Your task to perform on an android device: Clear the cart on costco.com. Add "razer naga" to the cart on costco.com Image 0: 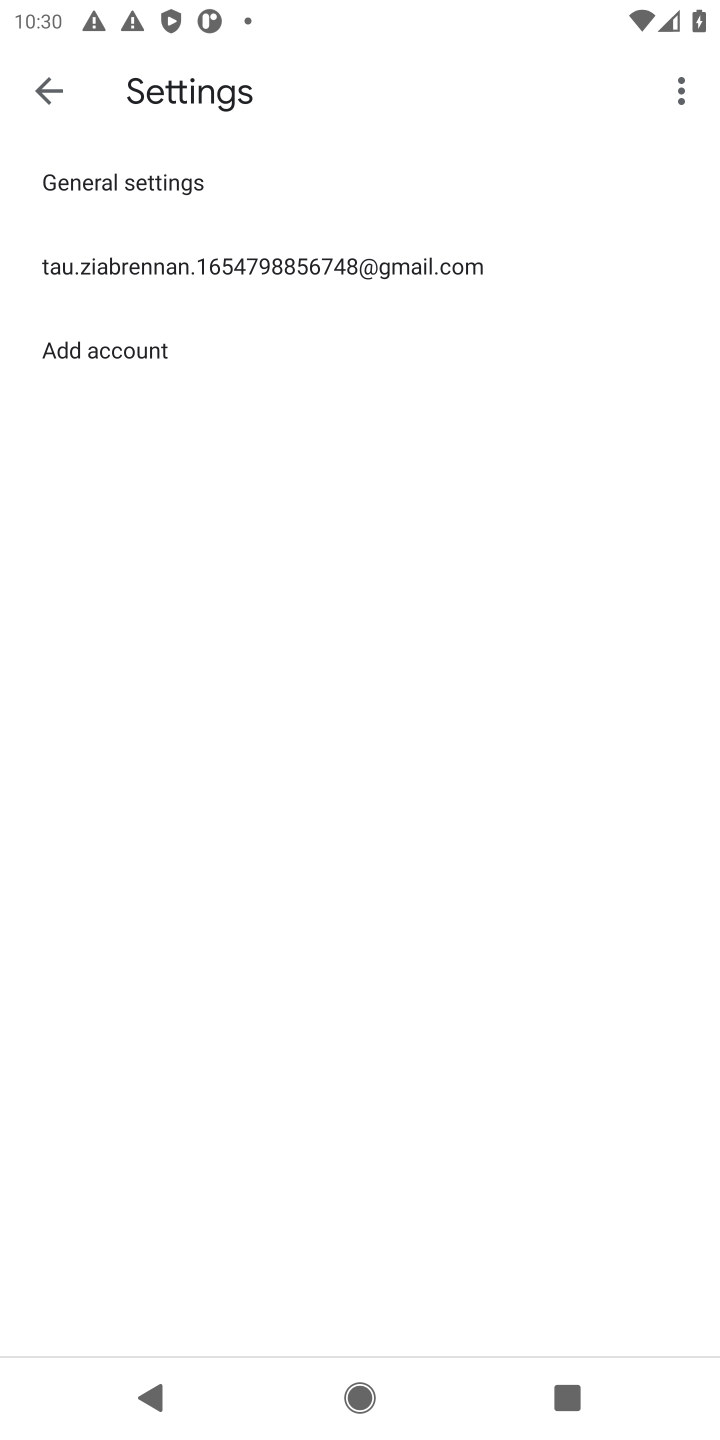
Step 0: press home button
Your task to perform on an android device: Clear the cart on costco.com. Add "razer naga" to the cart on costco.com Image 1: 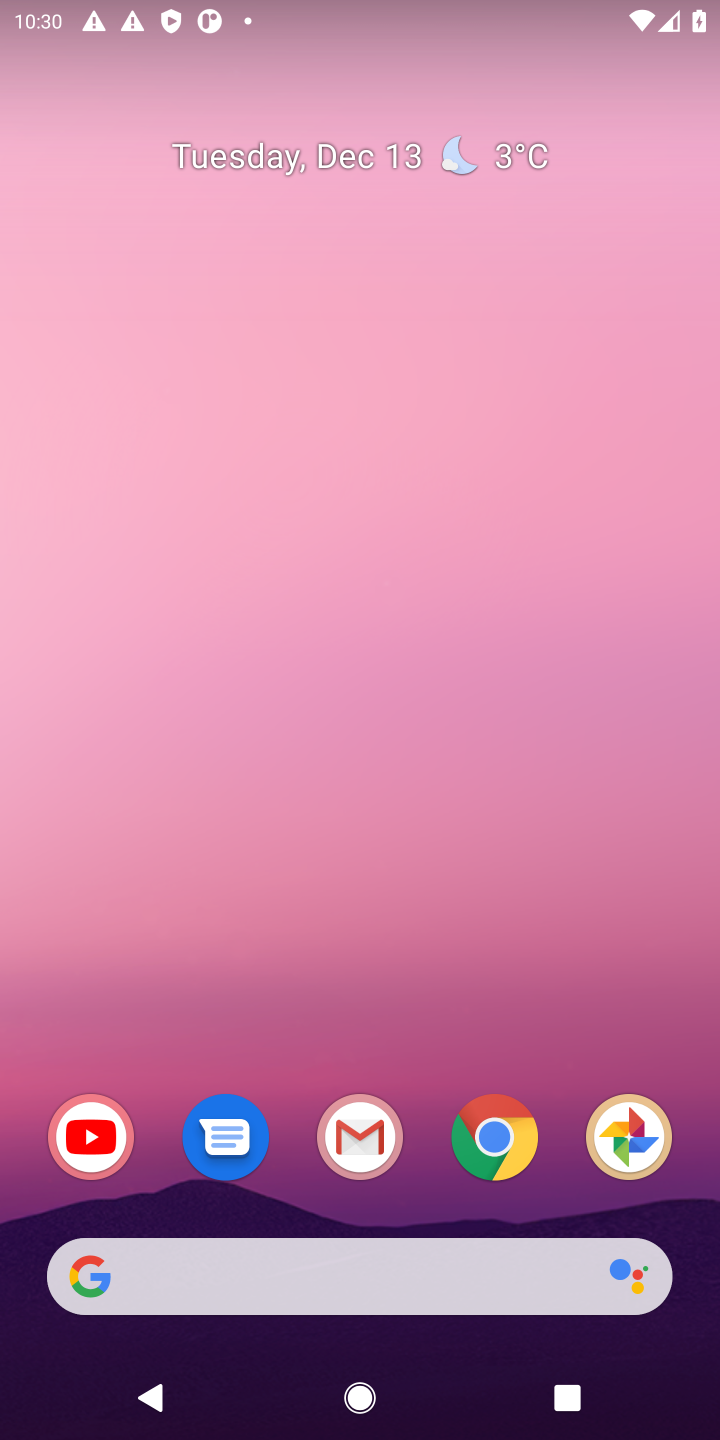
Step 1: click (490, 1124)
Your task to perform on an android device: Clear the cart on costco.com. Add "razer naga" to the cart on costco.com Image 2: 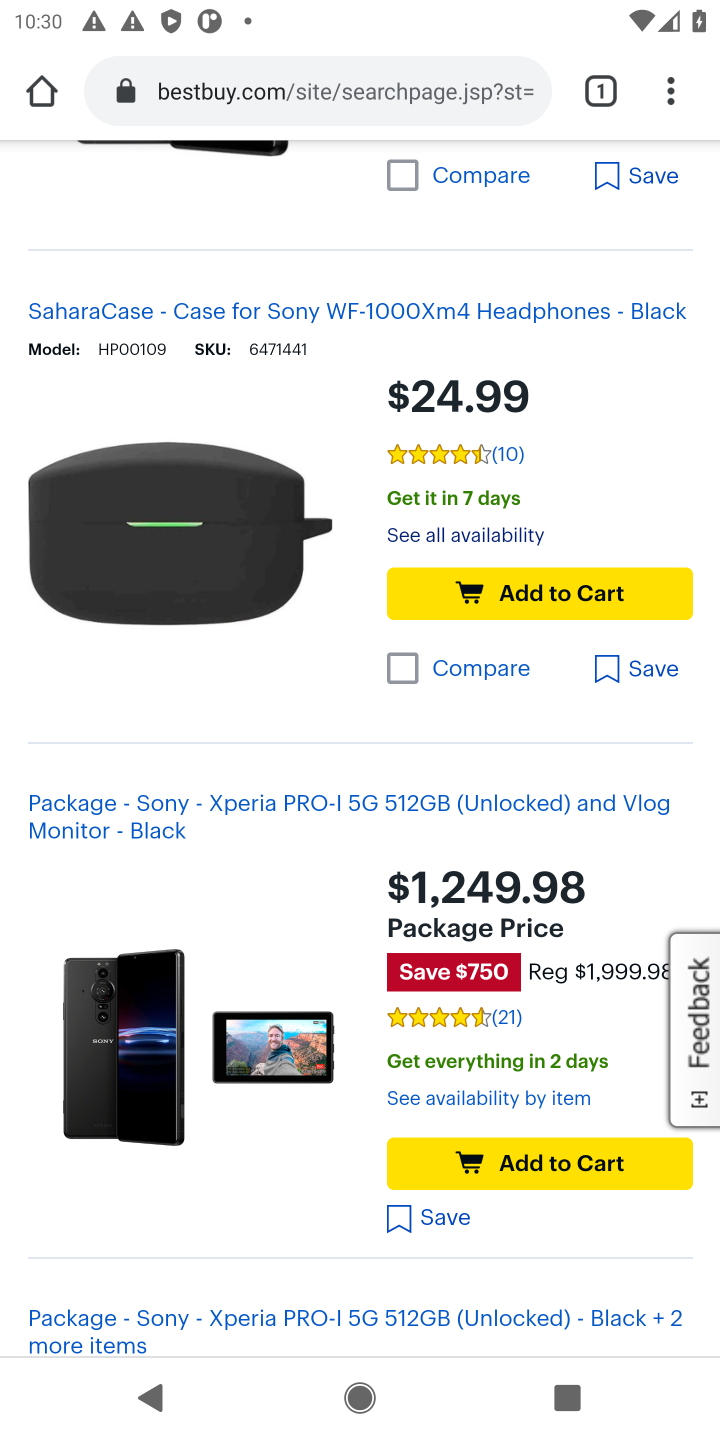
Step 2: click (602, 87)
Your task to perform on an android device: Clear the cart on costco.com. Add "razer naga" to the cart on costco.com Image 3: 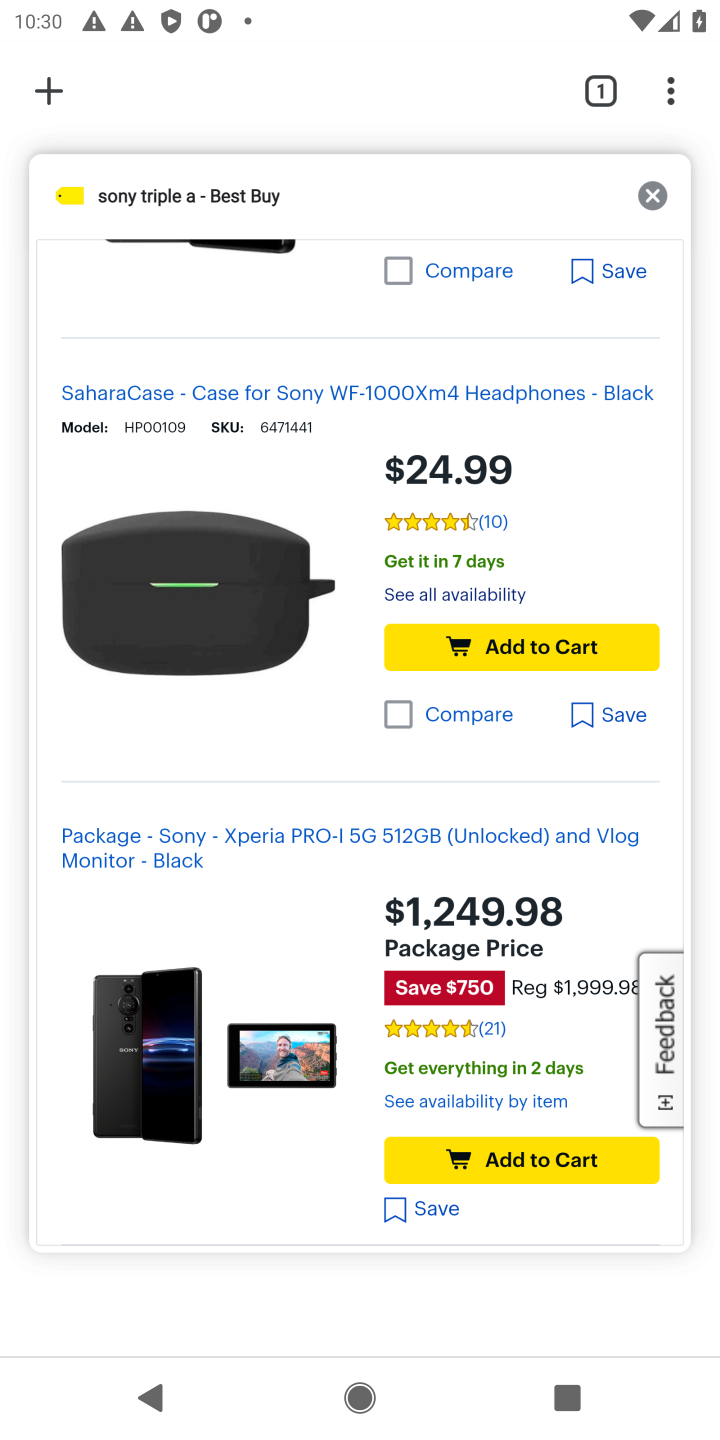
Step 3: click (43, 84)
Your task to perform on an android device: Clear the cart on costco.com. Add "razer naga" to the cart on costco.com Image 4: 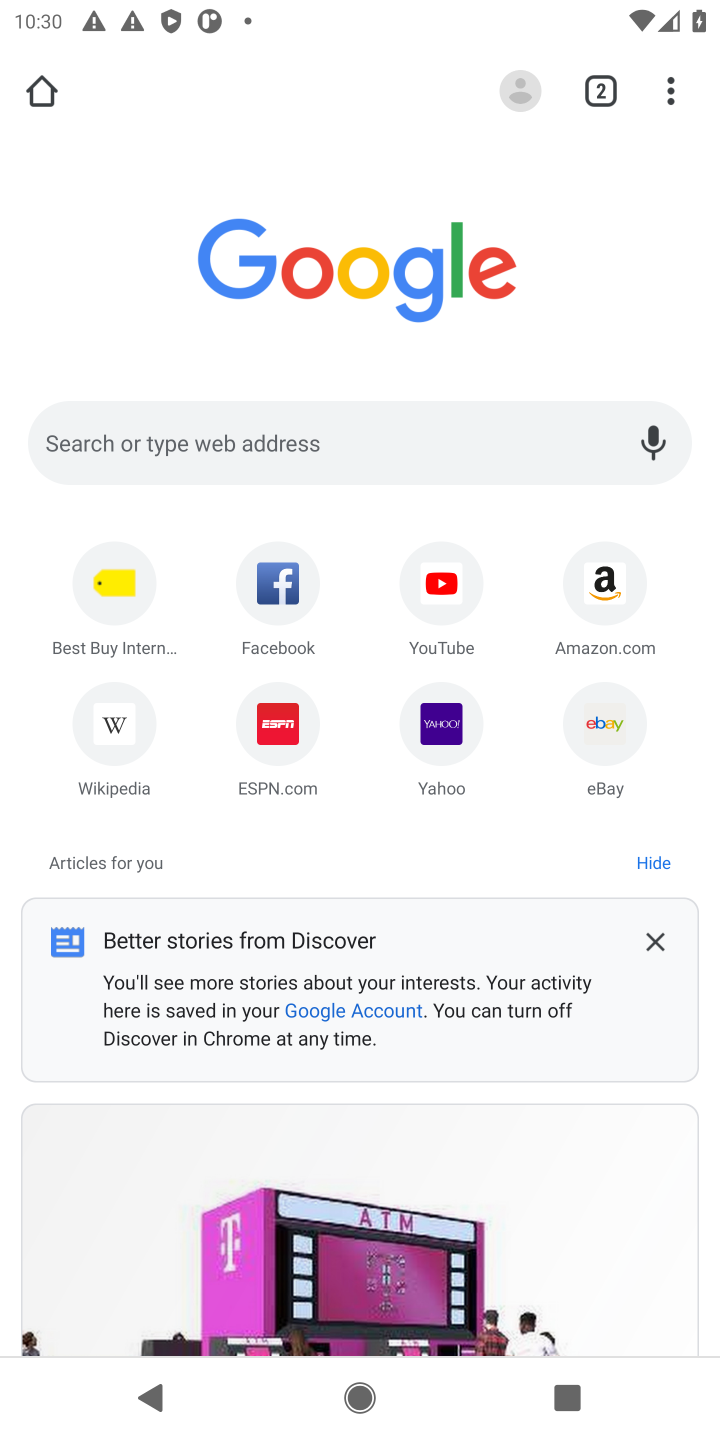
Step 4: click (231, 447)
Your task to perform on an android device: Clear the cart on costco.com. Add "razer naga" to the cart on costco.com Image 5: 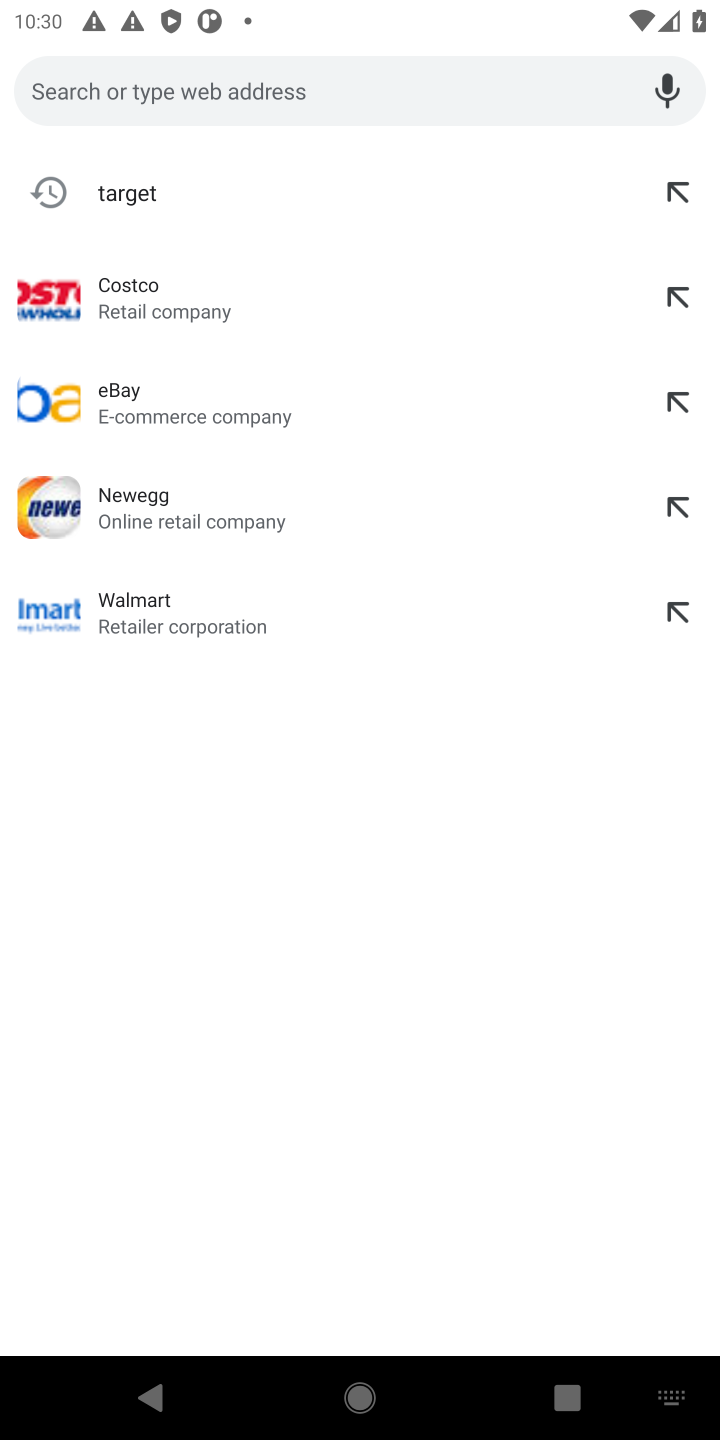
Step 5: type "costco"
Your task to perform on an android device: Clear the cart on costco.com. Add "razer naga" to the cart on costco.com Image 6: 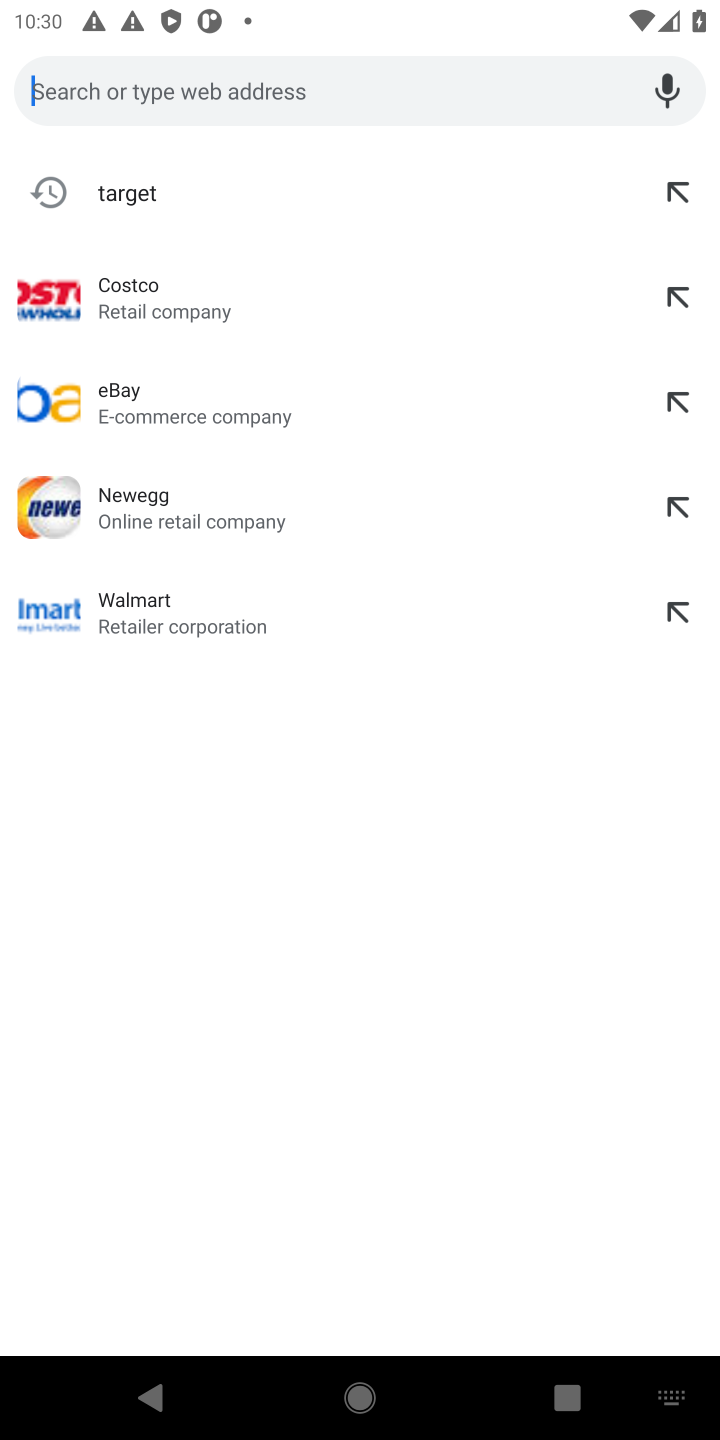
Step 6: drag from (161, 299) to (21, 304)
Your task to perform on an android device: Clear the cart on costco.com. Add "razer naga" to the cart on costco.com Image 7: 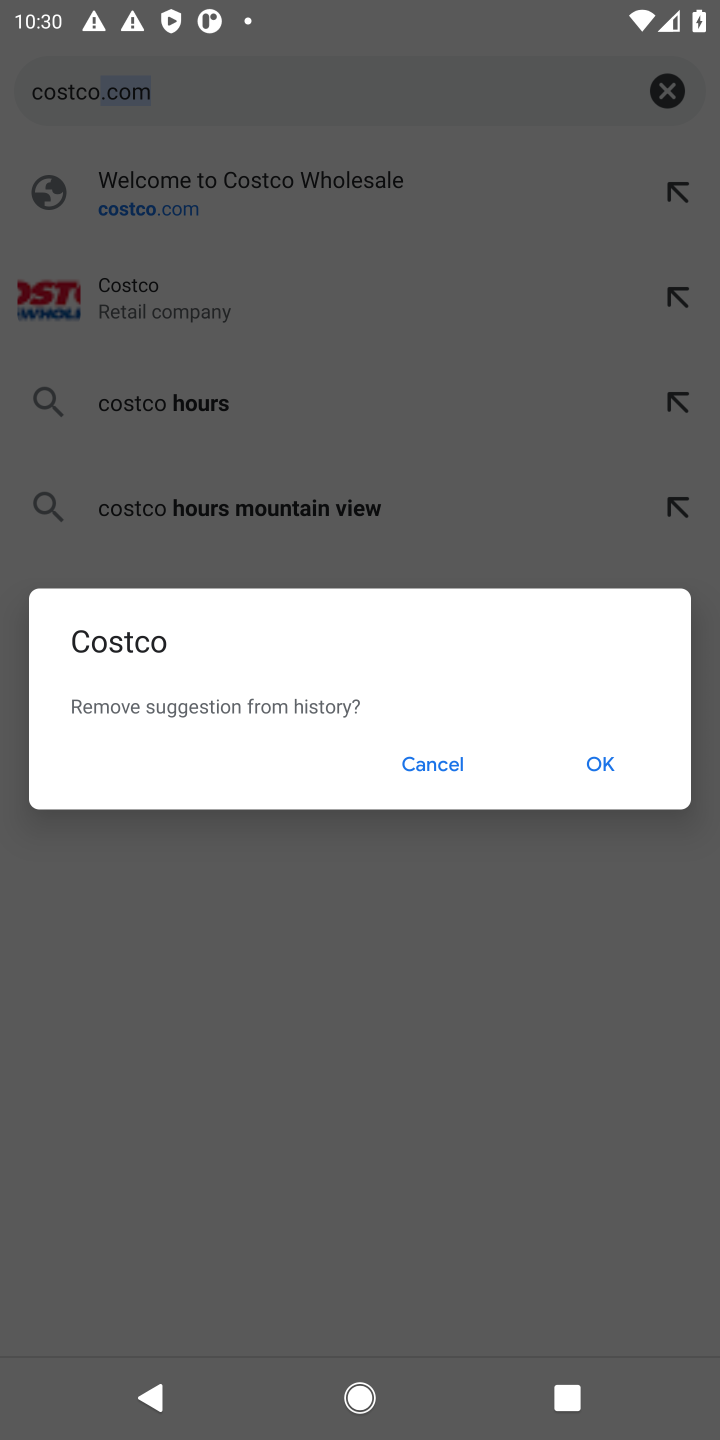
Step 7: click (581, 757)
Your task to perform on an android device: Clear the cart on costco.com. Add "razer naga" to the cart on costco.com Image 8: 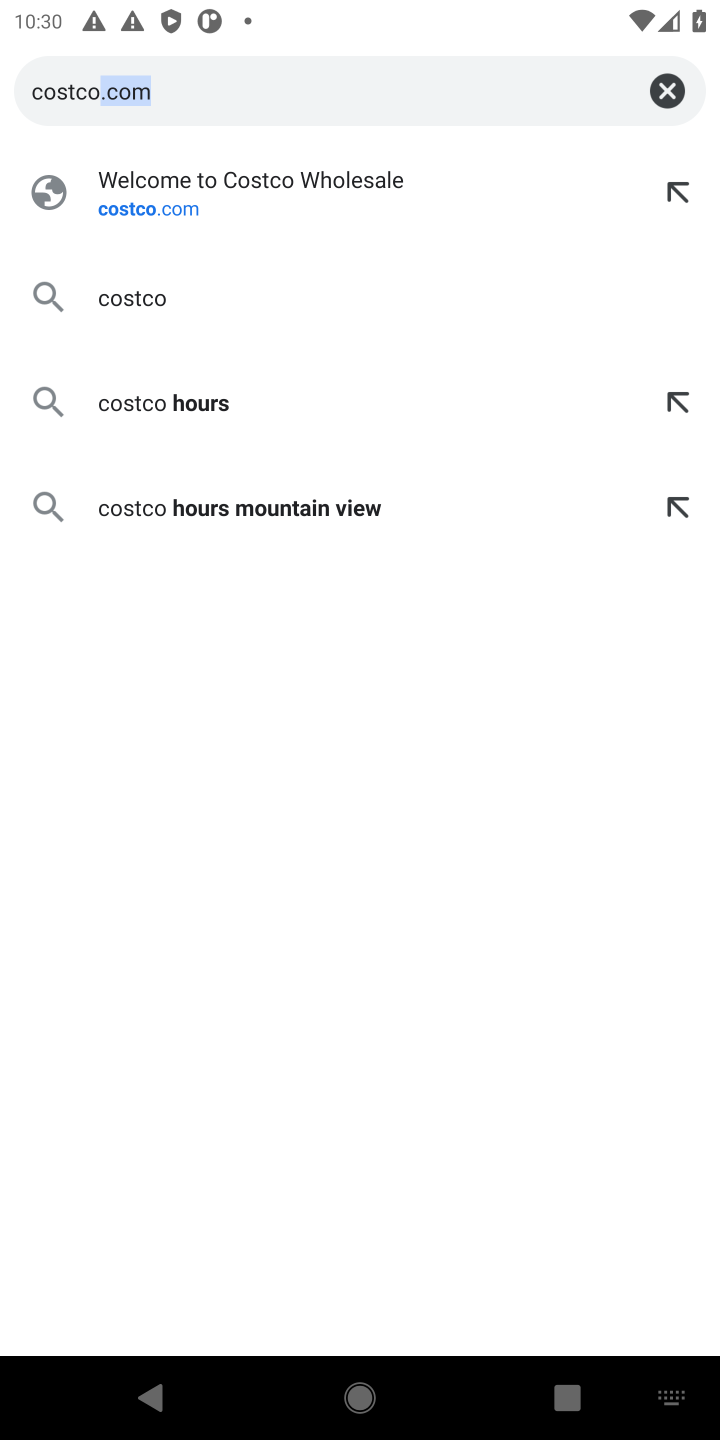
Step 8: click (182, 191)
Your task to perform on an android device: Clear the cart on costco.com. Add "razer naga" to the cart on costco.com Image 9: 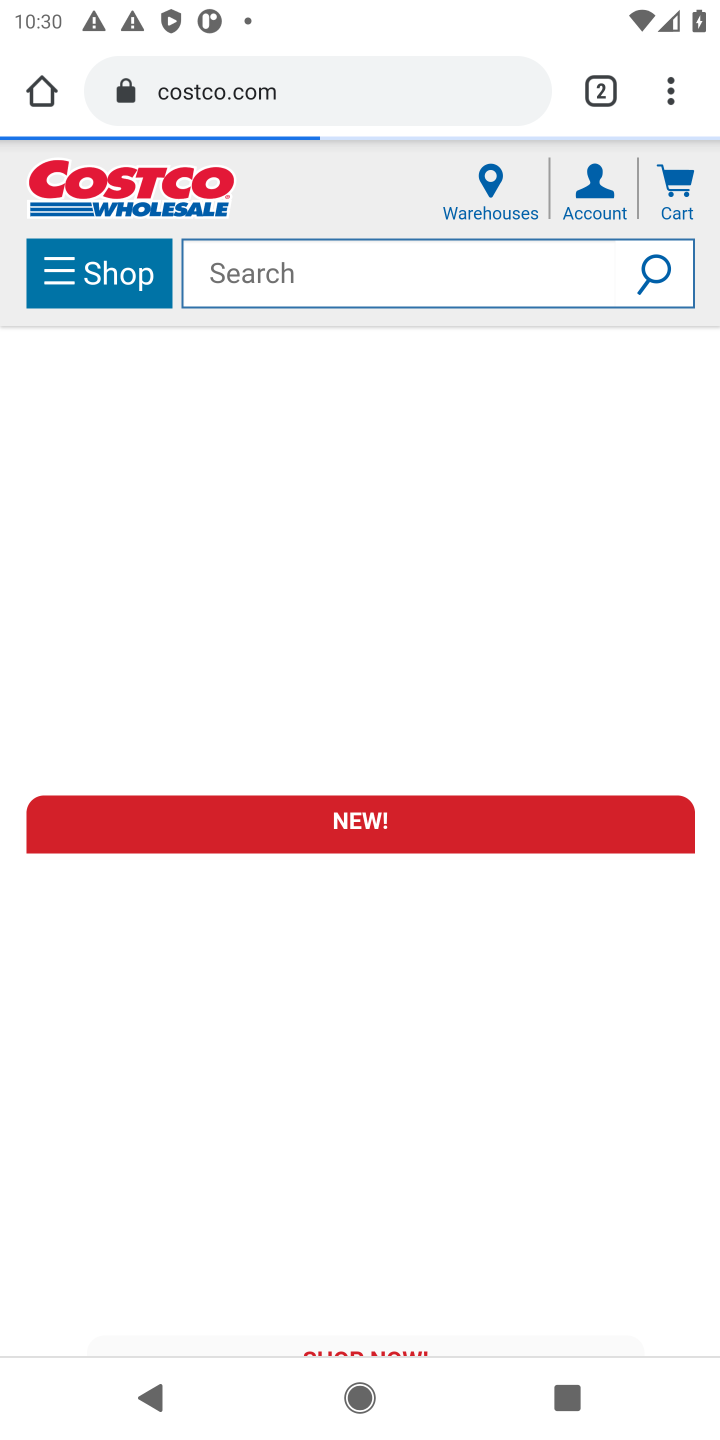
Step 9: click (389, 276)
Your task to perform on an android device: Clear the cart on costco.com. Add "razer naga" to the cart on costco.com Image 10: 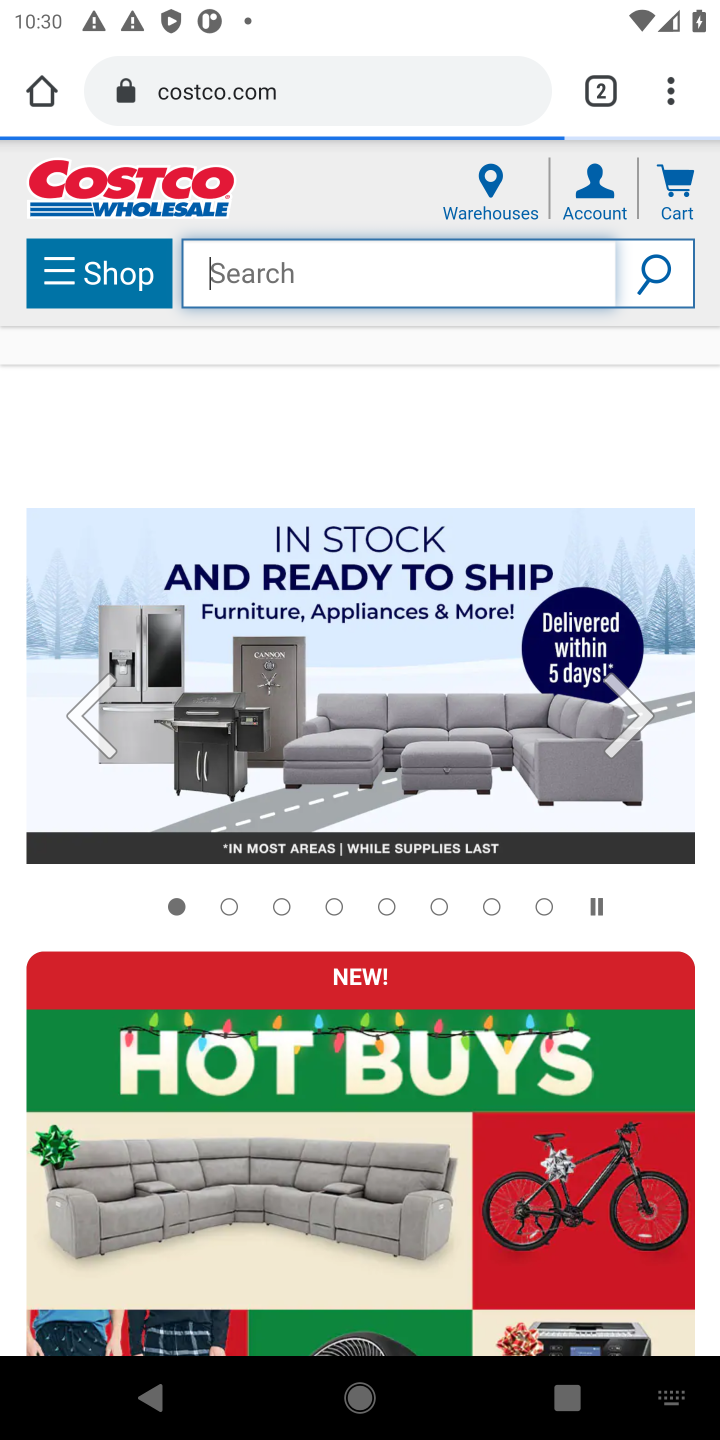
Step 10: type "razer naga"
Your task to perform on an android device: Clear the cart on costco.com. Add "razer naga" to the cart on costco.com Image 11: 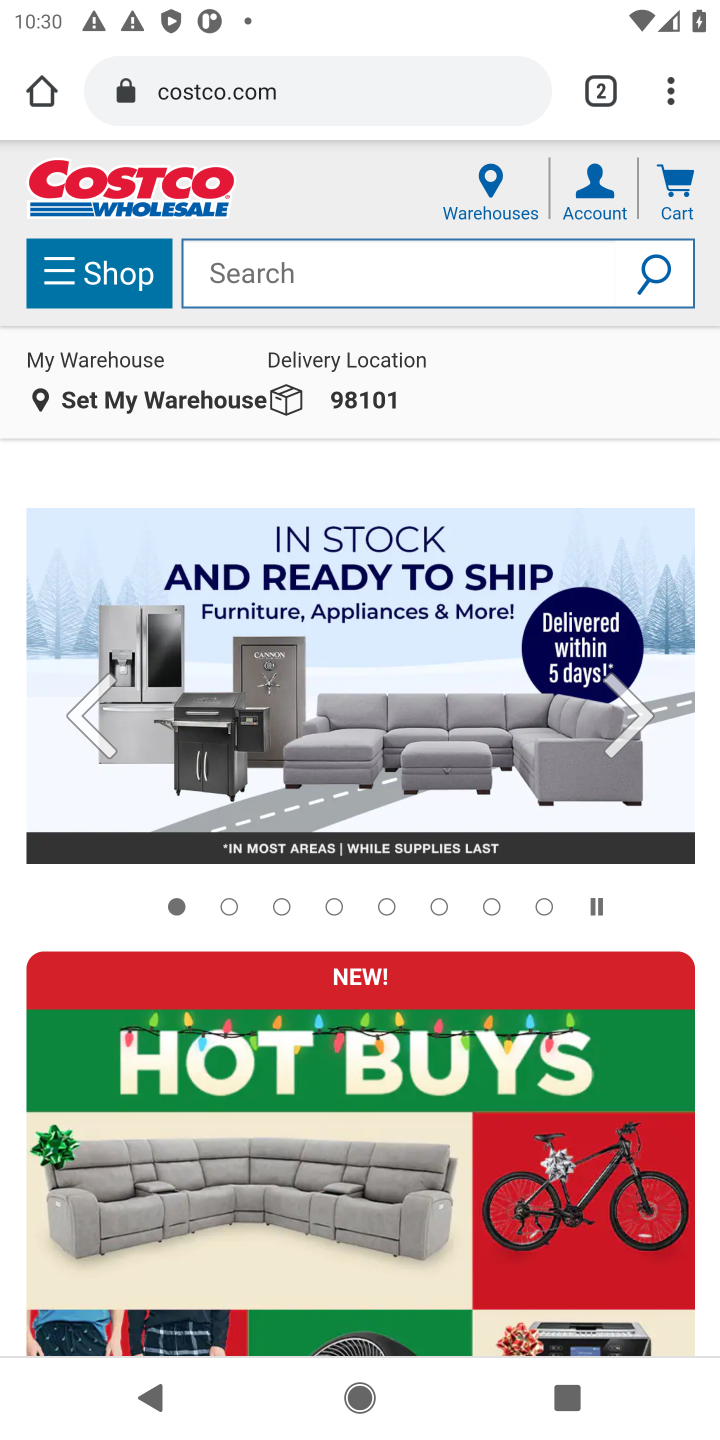
Step 11: click (270, 281)
Your task to perform on an android device: Clear the cart on costco.com. Add "razer naga" to the cart on costco.com Image 12: 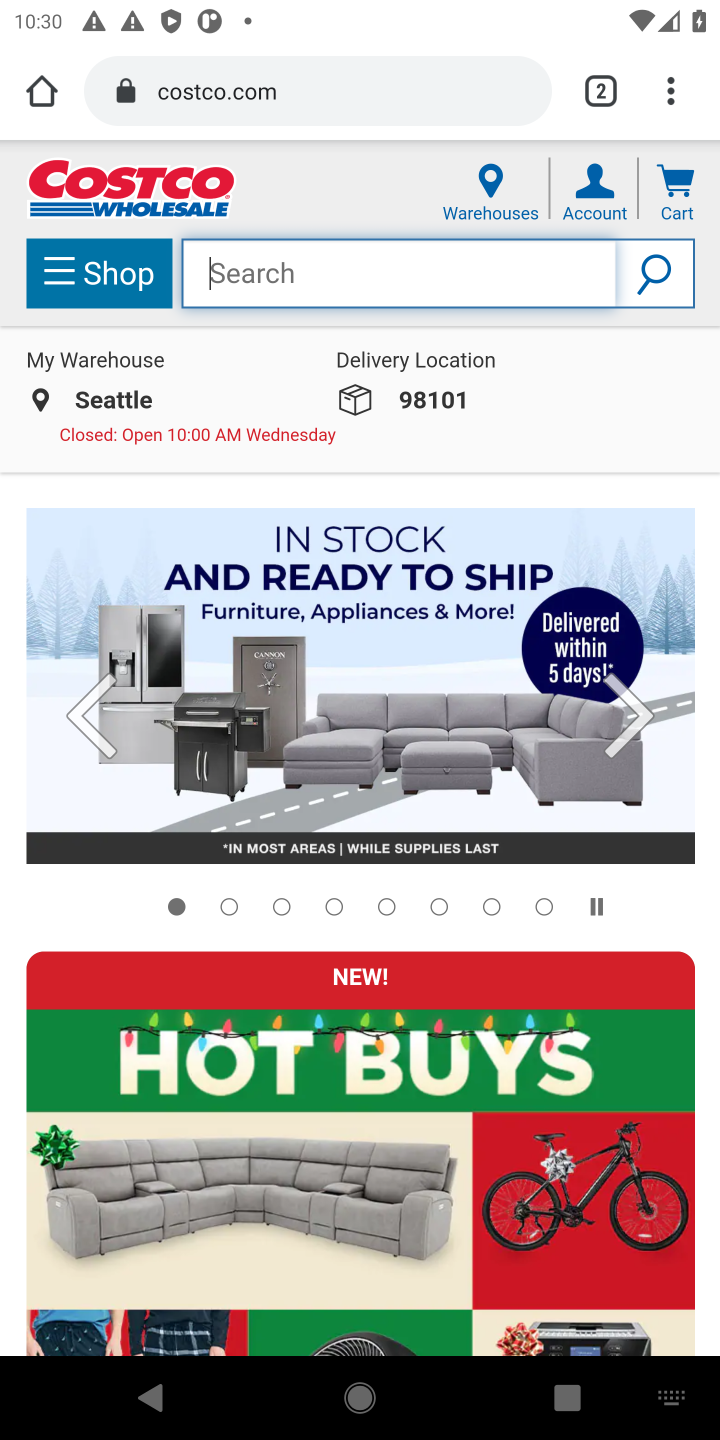
Step 12: type "razer naga"
Your task to perform on an android device: Clear the cart on costco.com. Add "razer naga" to the cart on costco.com Image 13: 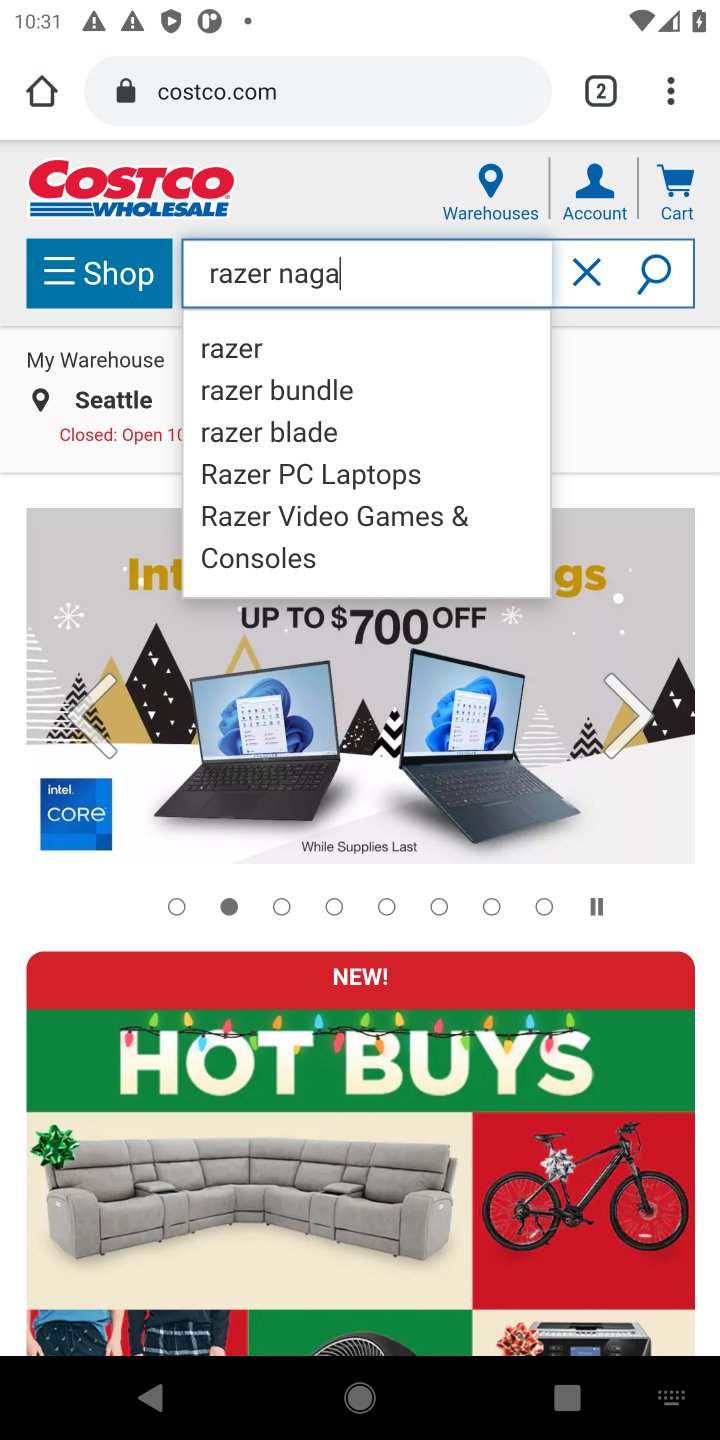
Step 13: click (653, 264)
Your task to perform on an android device: Clear the cart on costco.com. Add "razer naga" to the cart on costco.com Image 14: 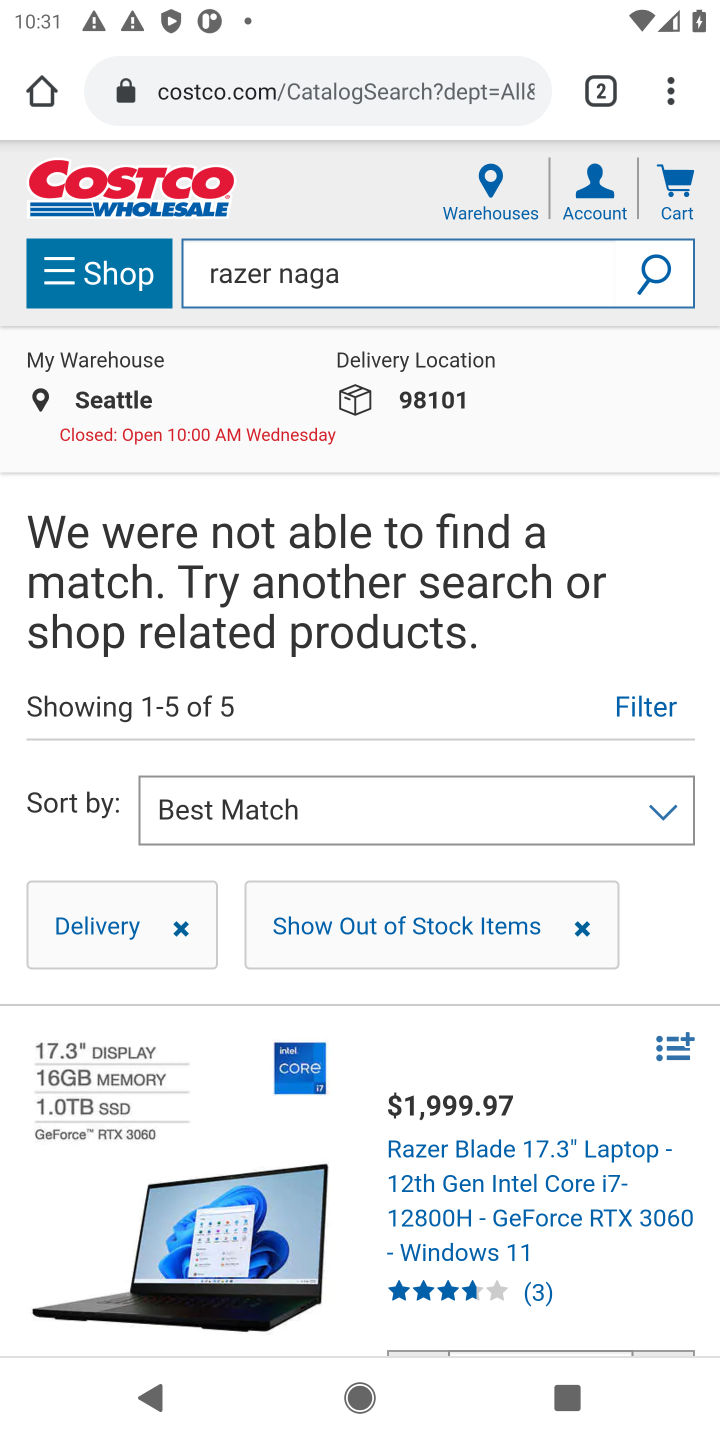
Step 14: task complete